Your task to perform on an android device: add a contact in the contacts app Image 0: 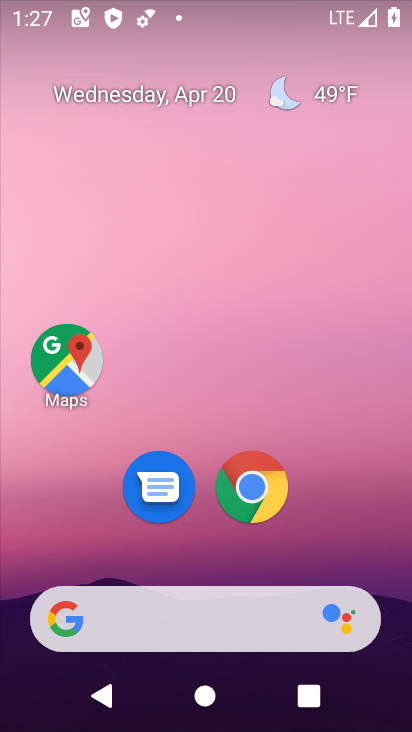
Step 0: drag from (403, 478) to (308, 108)
Your task to perform on an android device: add a contact in the contacts app Image 1: 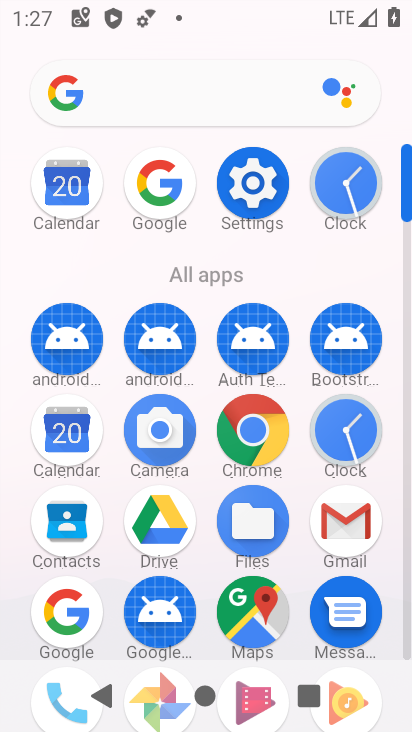
Step 1: click (75, 517)
Your task to perform on an android device: add a contact in the contacts app Image 2: 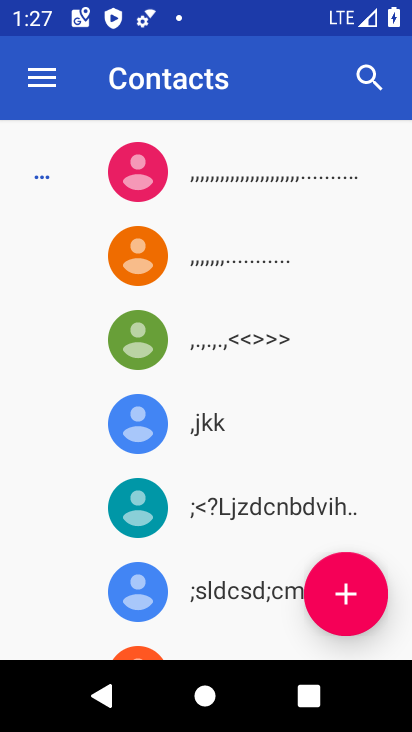
Step 2: click (365, 583)
Your task to perform on an android device: add a contact in the contacts app Image 3: 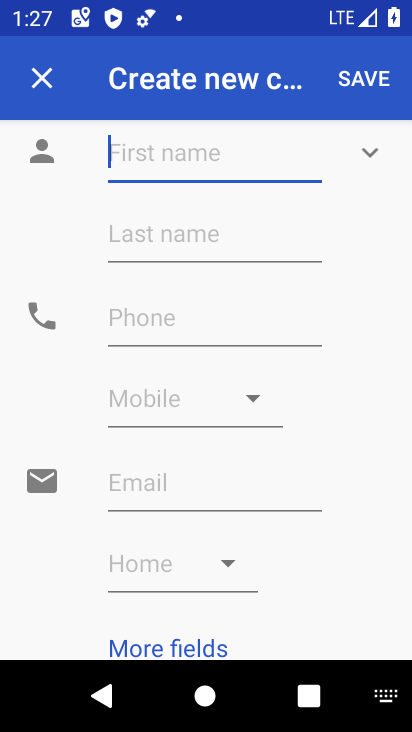
Step 3: click (278, 158)
Your task to perform on an android device: add a contact in the contacts app Image 4: 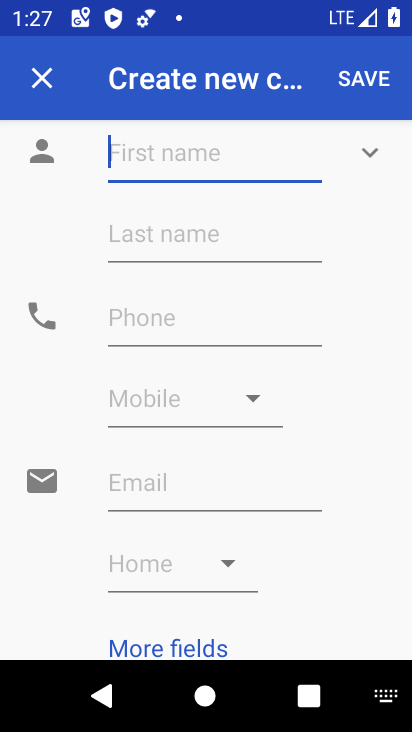
Step 4: type "kbkbh"
Your task to perform on an android device: add a contact in the contacts app Image 5: 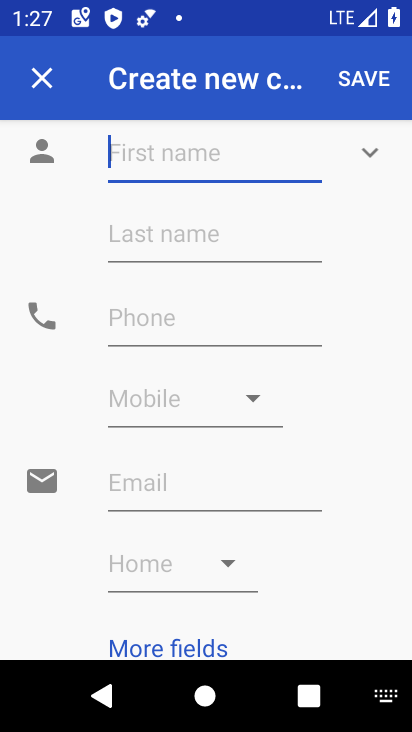
Step 5: click (286, 336)
Your task to perform on an android device: add a contact in the contacts app Image 6: 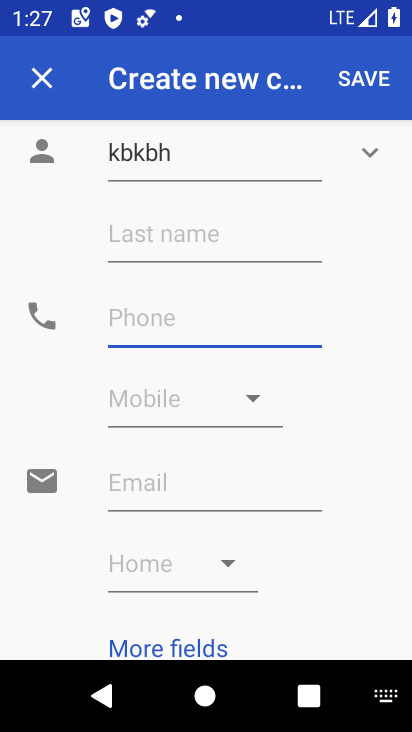
Step 6: type "7967969778"
Your task to perform on an android device: add a contact in the contacts app Image 7: 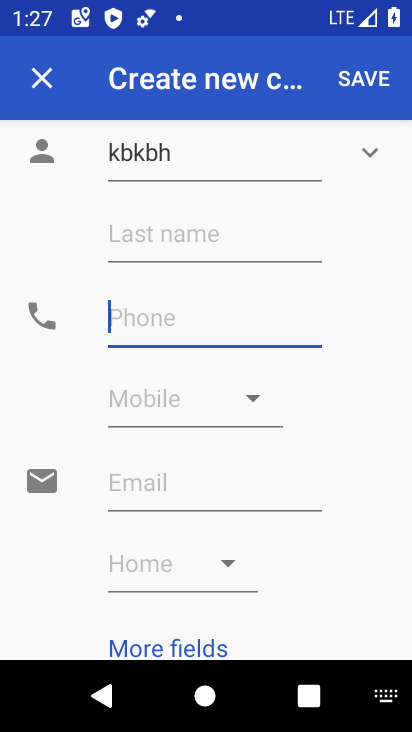
Step 7: click (404, 537)
Your task to perform on an android device: add a contact in the contacts app Image 8: 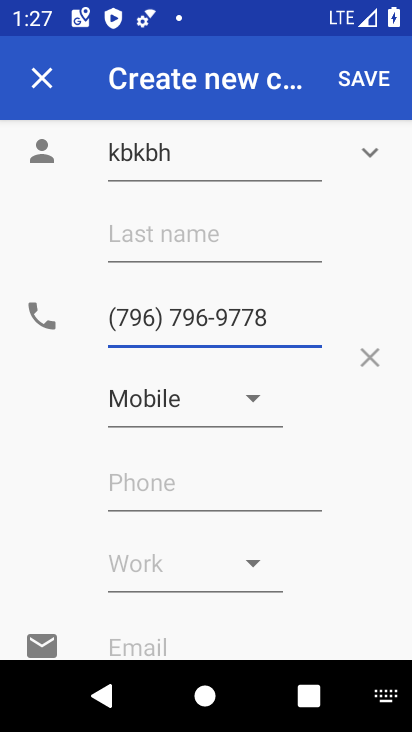
Step 8: click (366, 78)
Your task to perform on an android device: add a contact in the contacts app Image 9: 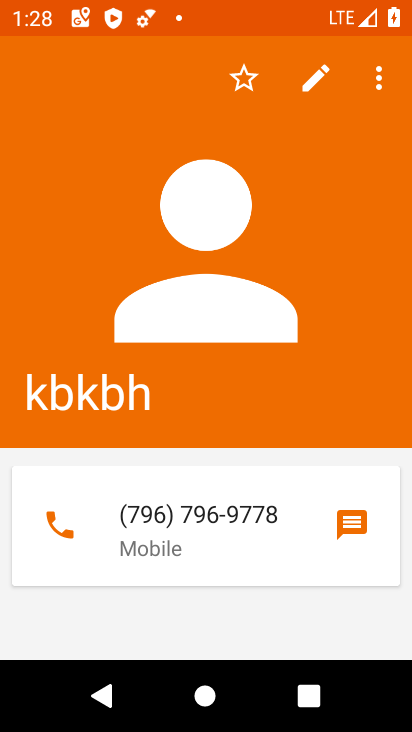
Step 9: task complete